Your task to perform on an android device: Is it going to rain tomorrow? Image 0: 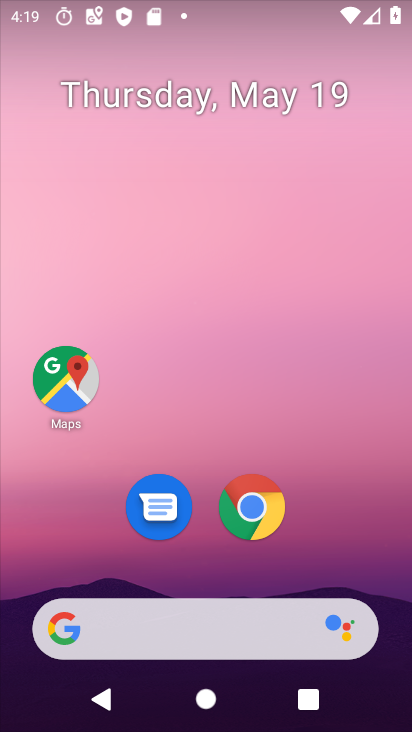
Step 0: click (379, 67)
Your task to perform on an android device: Is it going to rain tomorrow? Image 1: 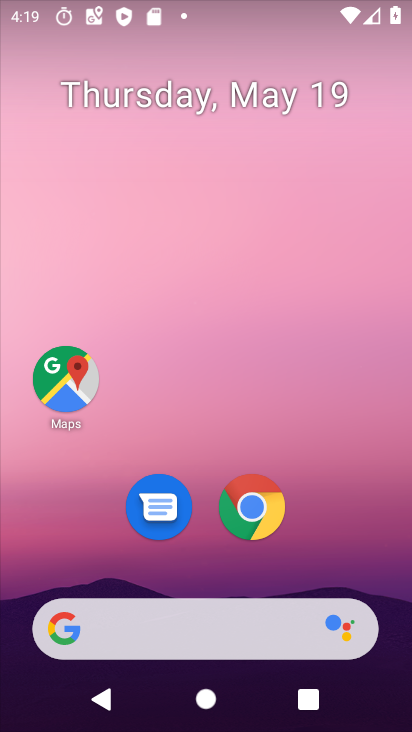
Step 1: drag from (390, 601) to (360, 174)
Your task to perform on an android device: Is it going to rain tomorrow? Image 2: 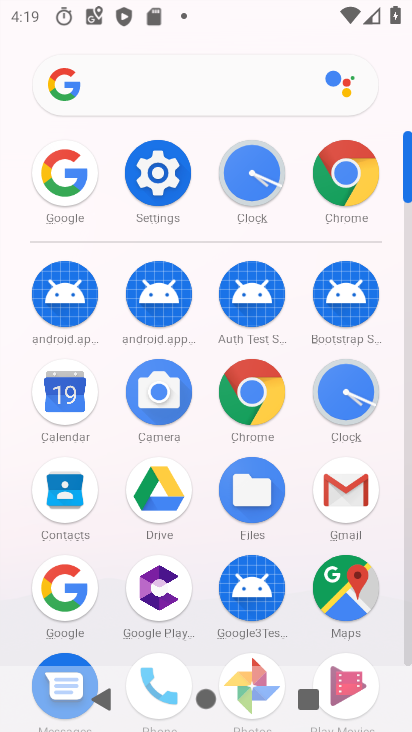
Step 2: click (60, 591)
Your task to perform on an android device: Is it going to rain tomorrow? Image 3: 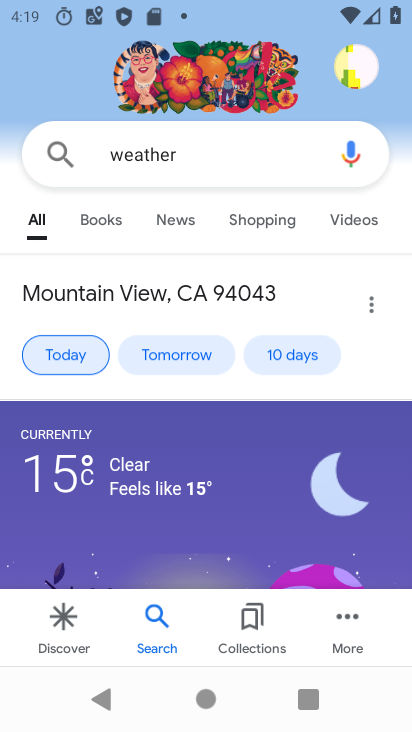
Step 3: click (64, 354)
Your task to perform on an android device: Is it going to rain tomorrow? Image 4: 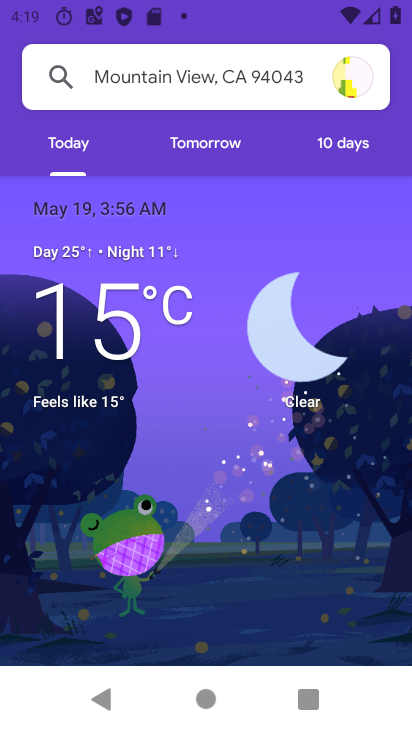
Step 4: click (222, 142)
Your task to perform on an android device: Is it going to rain tomorrow? Image 5: 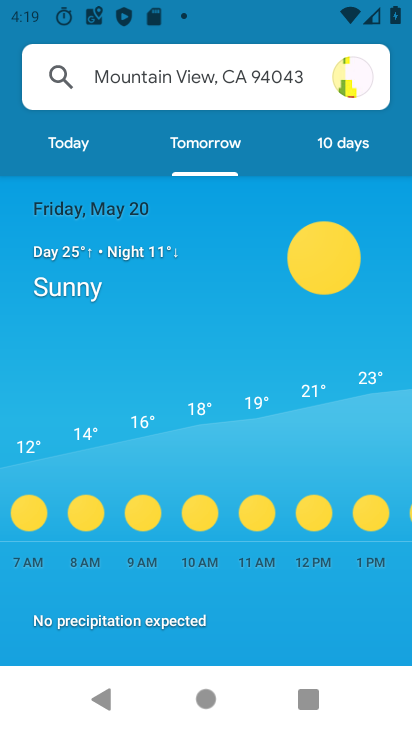
Step 5: task complete